Your task to perform on an android device: turn smart compose on in the gmail app Image 0: 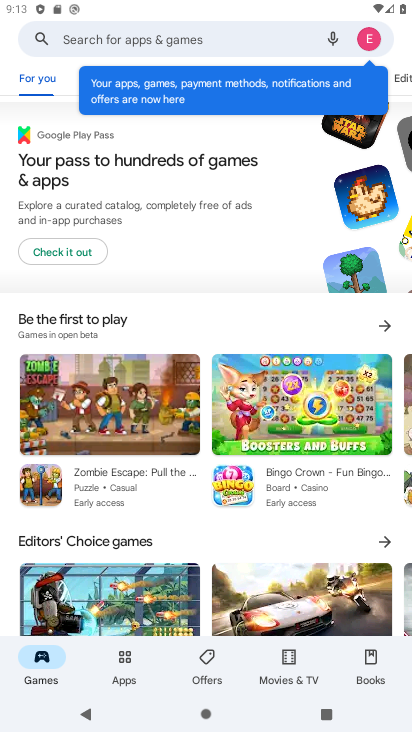
Step 0: press home button
Your task to perform on an android device: turn smart compose on in the gmail app Image 1: 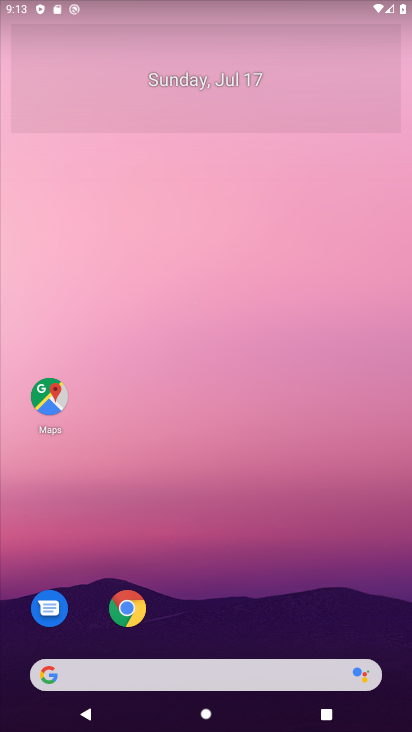
Step 1: drag from (290, 439) to (373, 0)
Your task to perform on an android device: turn smart compose on in the gmail app Image 2: 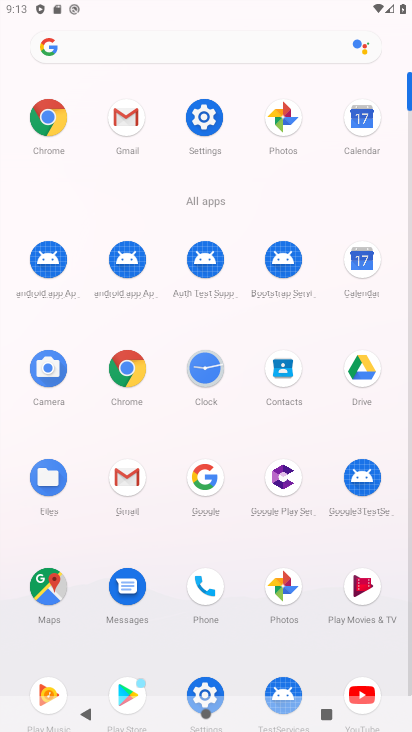
Step 2: click (126, 121)
Your task to perform on an android device: turn smart compose on in the gmail app Image 3: 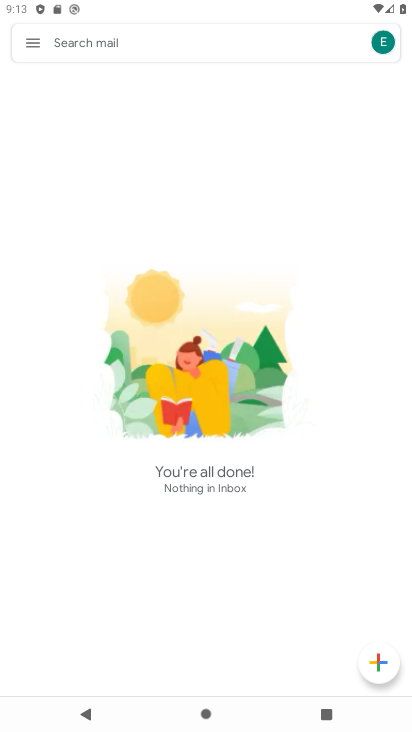
Step 3: click (23, 42)
Your task to perform on an android device: turn smart compose on in the gmail app Image 4: 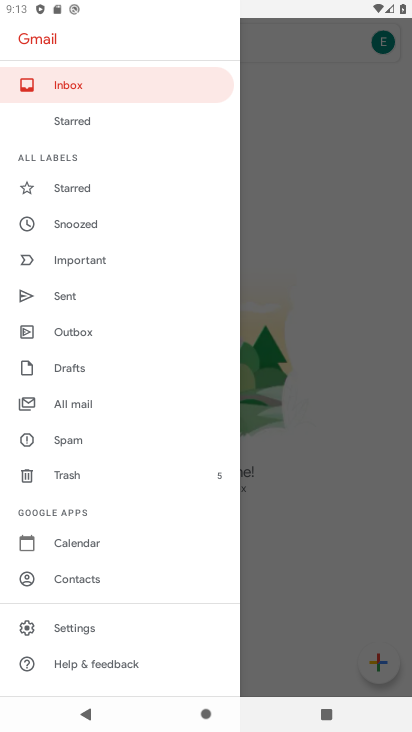
Step 4: drag from (86, 682) to (77, 163)
Your task to perform on an android device: turn smart compose on in the gmail app Image 5: 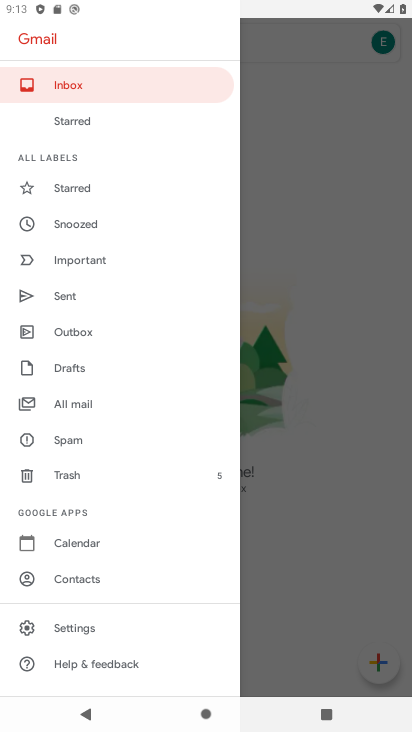
Step 5: click (52, 632)
Your task to perform on an android device: turn smart compose on in the gmail app Image 6: 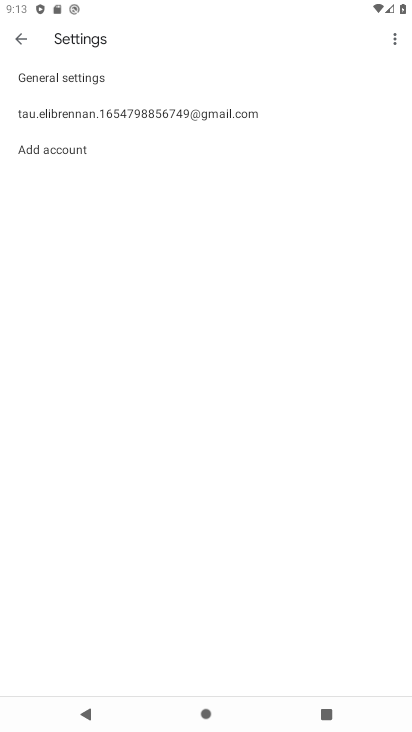
Step 6: click (101, 110)
Your task to perform on an android device: turn smart compose on in the gmail app Image 7: 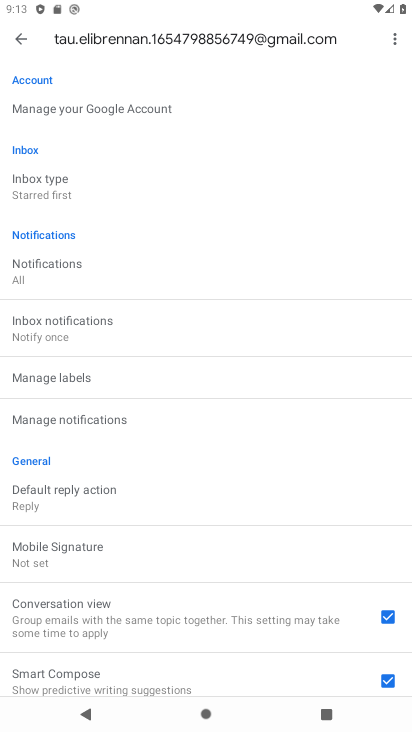
Step 7: task complete